Your task to perform on an android device: check android version Image 0: 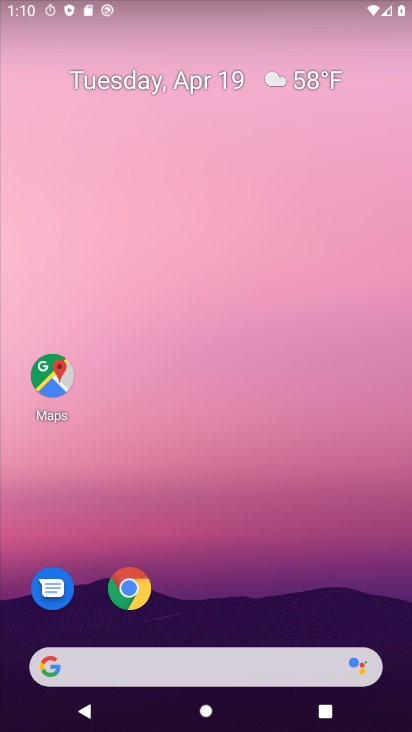
Step 0: drag from (219, 600) to (219, 206)
Your task to perform on an android device: check android version Image 1: 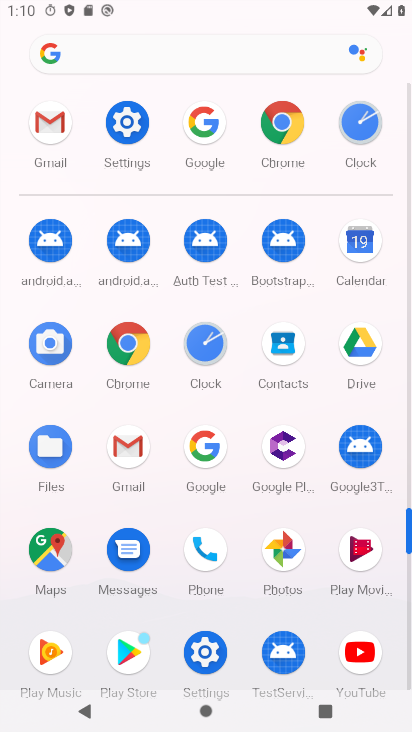
Step 1: click (135, 135)
Your task to perform on an android device: check android version Image 2: 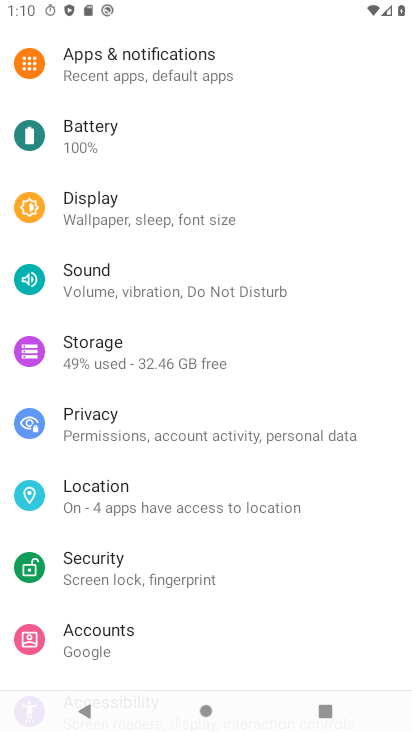
Step 2: drag from (203, 580) to (173, 223)
Your task to perform on an android device: check android version Image 3: 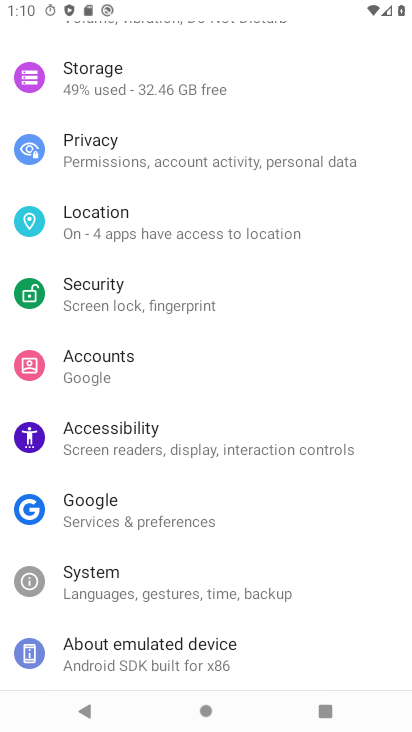
Step 3: drag from (162, 599) to (169, 182)
Your task to perform on an android device: check android version Image 4: 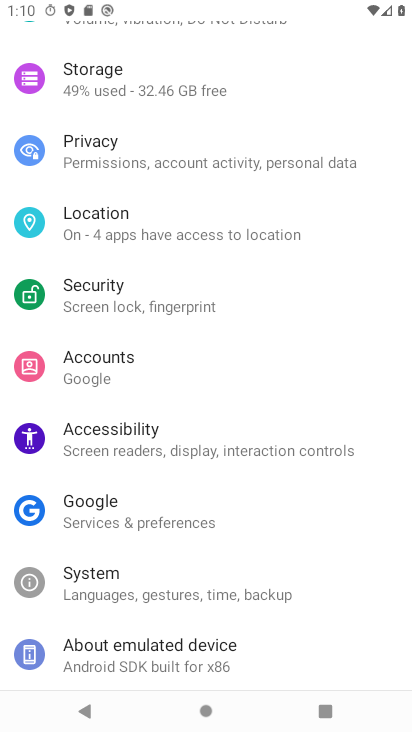
Step 4: click (160, 651)
Your task to perform on an android device: check android version Image 5: 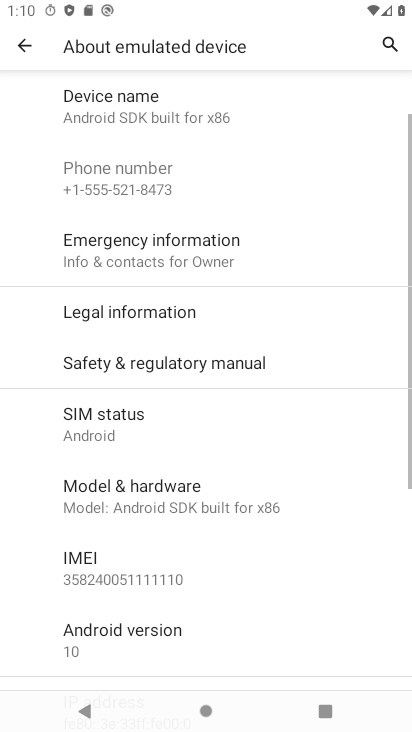
Step 5: drag from (165, 613) to (171, 359)
Your task to perform on an android device: check android version Image 6: 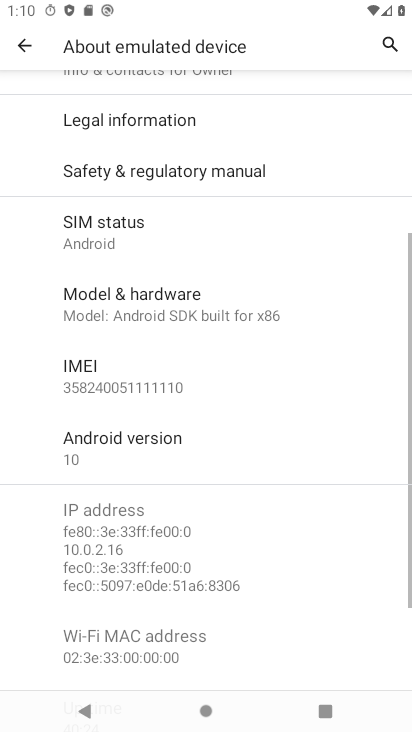
Step 6: click (165, 447)
Your task to perform on an android device: check android version Image 7: 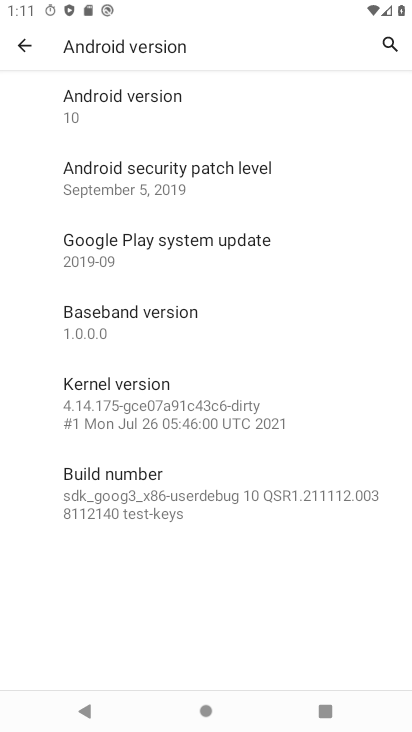
Step 7: click (66, 111)
Your task to perform on an android device: check android version Image 8: 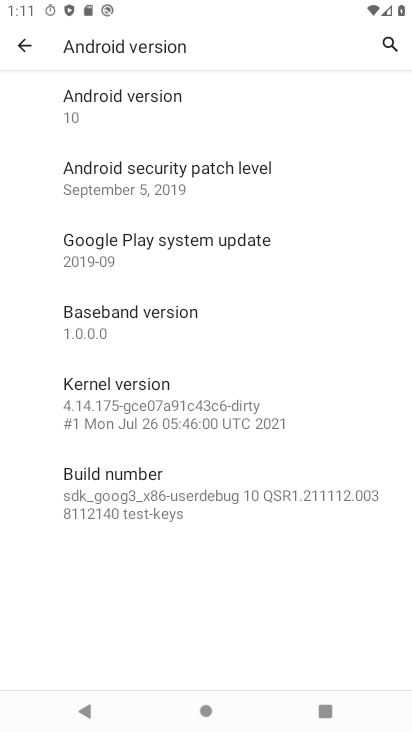
Step 8: click (290, 128)
Your task to perform on an android device: check android version Image 9: 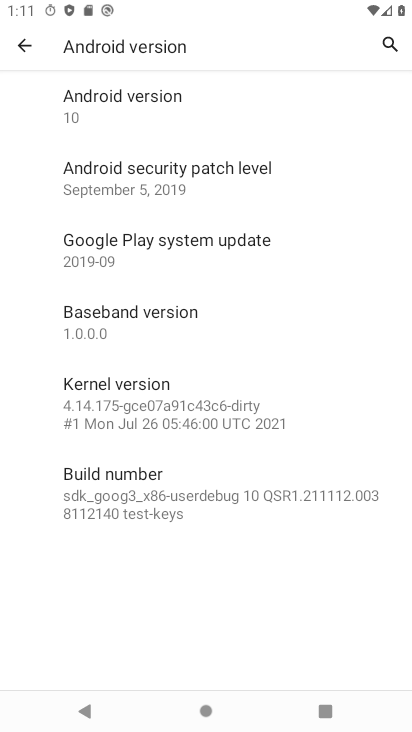
Step 9: task complete